Your task to perform on an android device: Open my contact list Image 0: 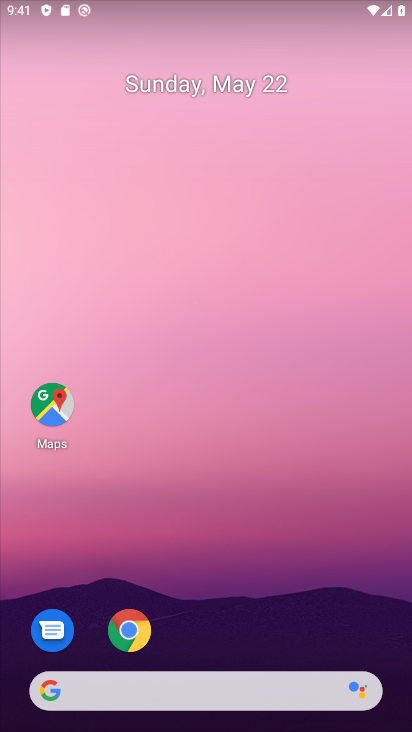
Step 0: drag from (387, 652) to (324, 142)
Your task to perform on an android device: Open my contact list Image 1: 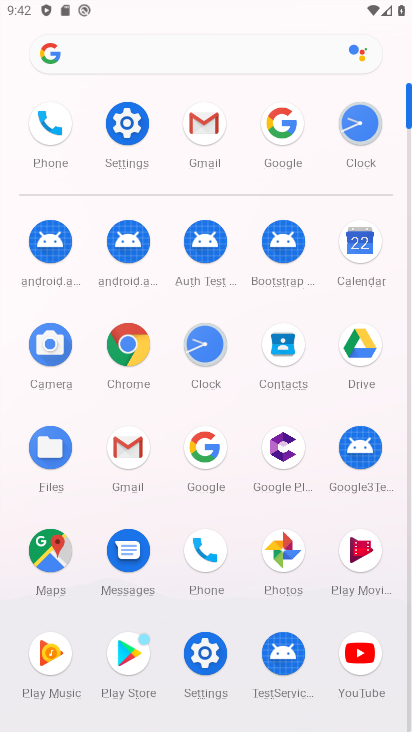
Step 1: click (291, 346)
Your task to perform on an android device: Open my contact list Image 2: 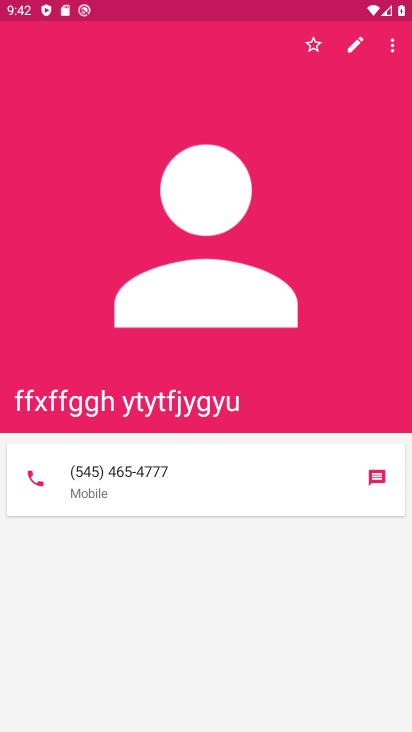
Step 2: press back button
Your task to perform on an android device: Open my contact list Image 3: 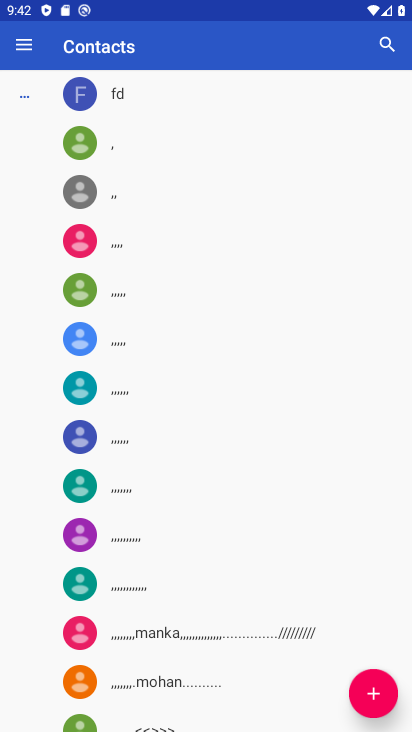
Step 3: click (372, 693)
Your task to perform on an android device: Open my contact list Image 4: 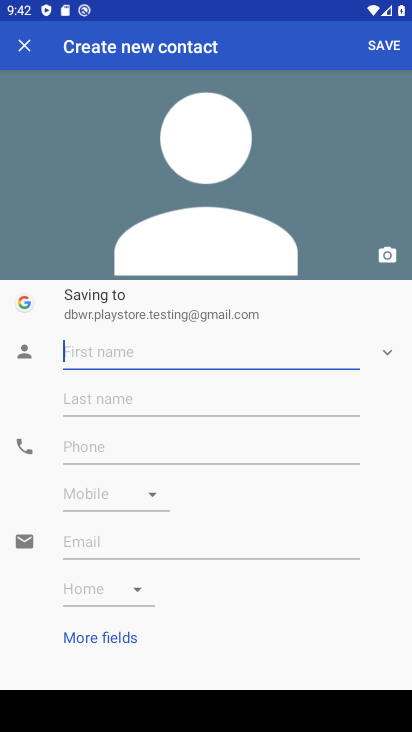
Step 4: type "gfghfgjh"
Your task to perform on an android device: Open my contact list Image 5: 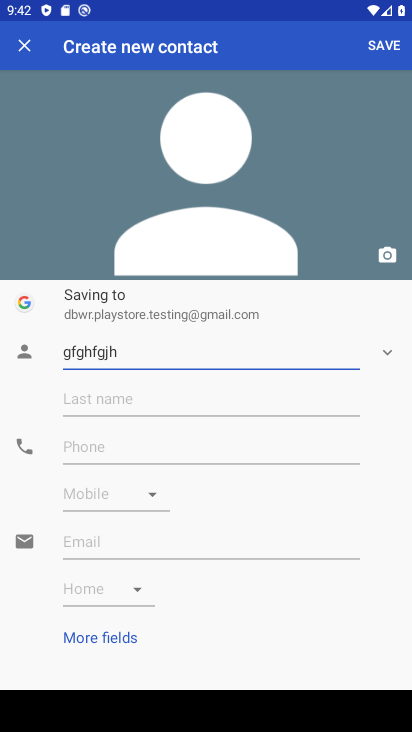
Step 5: click (229, 392)
Your task to perform on an android device: Open my contact list Image 6: 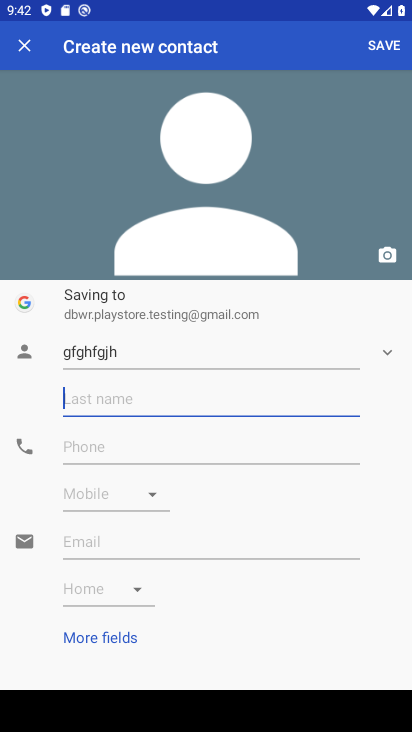
Step 6: type "fdfdfddgh"
Your task to perform on an android device: Open my contact list Image 7: 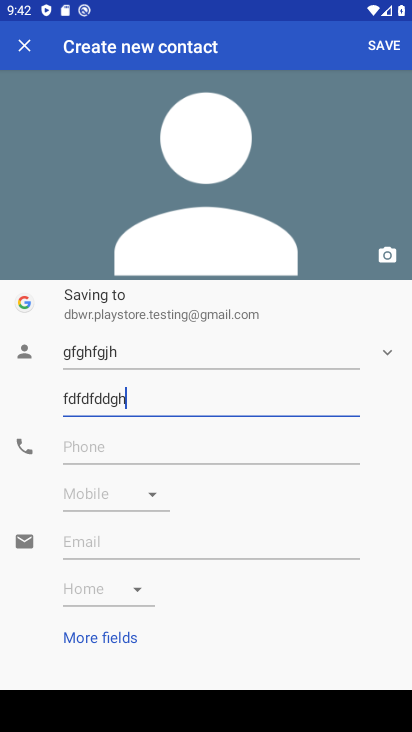
Step 7: click (111, 450)
Your task to perform on an android device: Open my contact list Image 8: 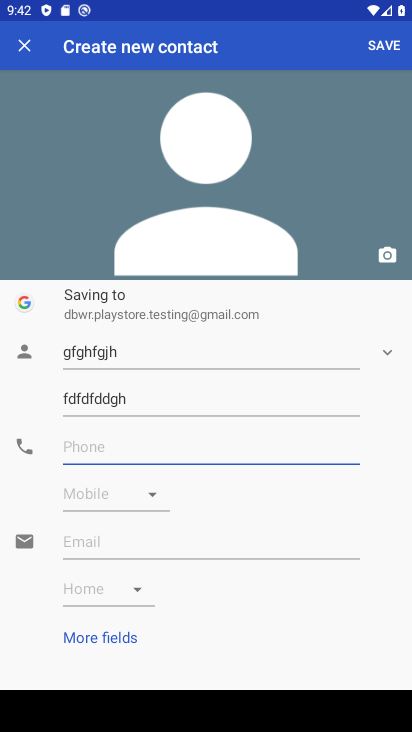
Step 8: type "5456447647"
Your task to perform on an android device: Open my contact list Image 9: 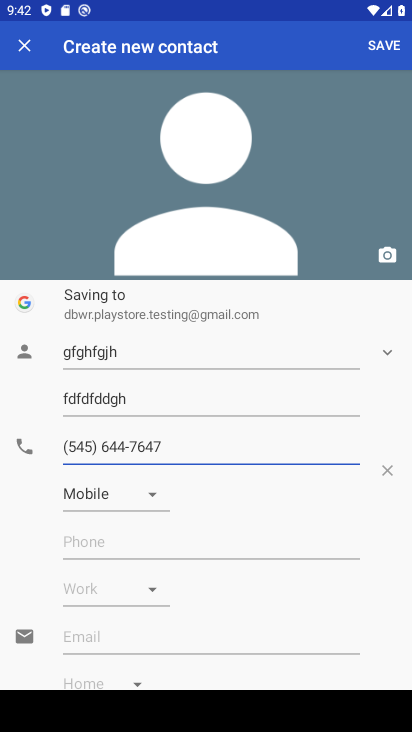
Step 9: click (388, 46)
Your task to perform on an android device: Open my contact list Image 10: 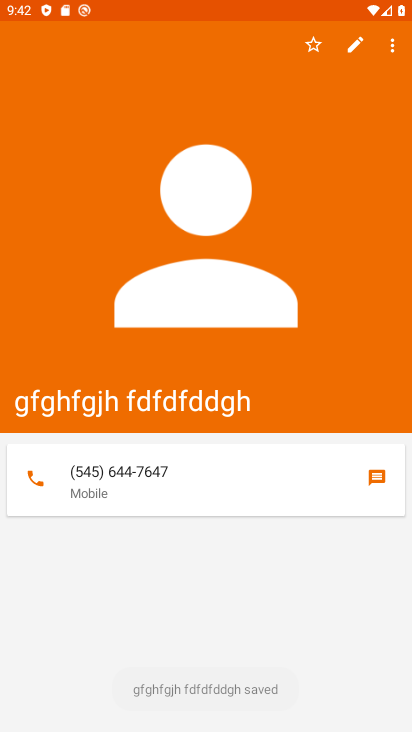
Step 10: task complete